Your task to perform on an android device: read, delete, or share a saved page in the chrome app Image 0: 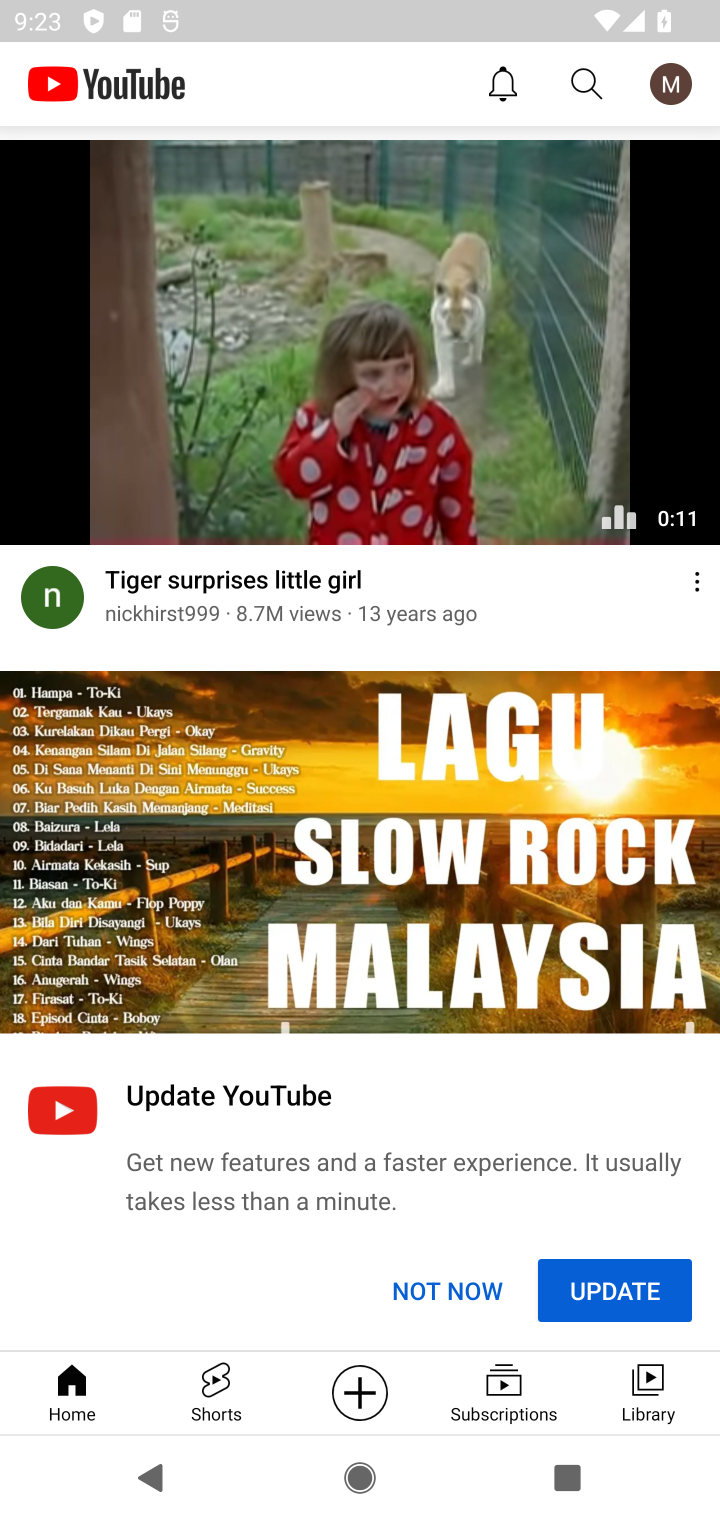
Step 0: press home button
Your task to perform on an android device: read, delete, or share a saved page in the chrome app Image 1: 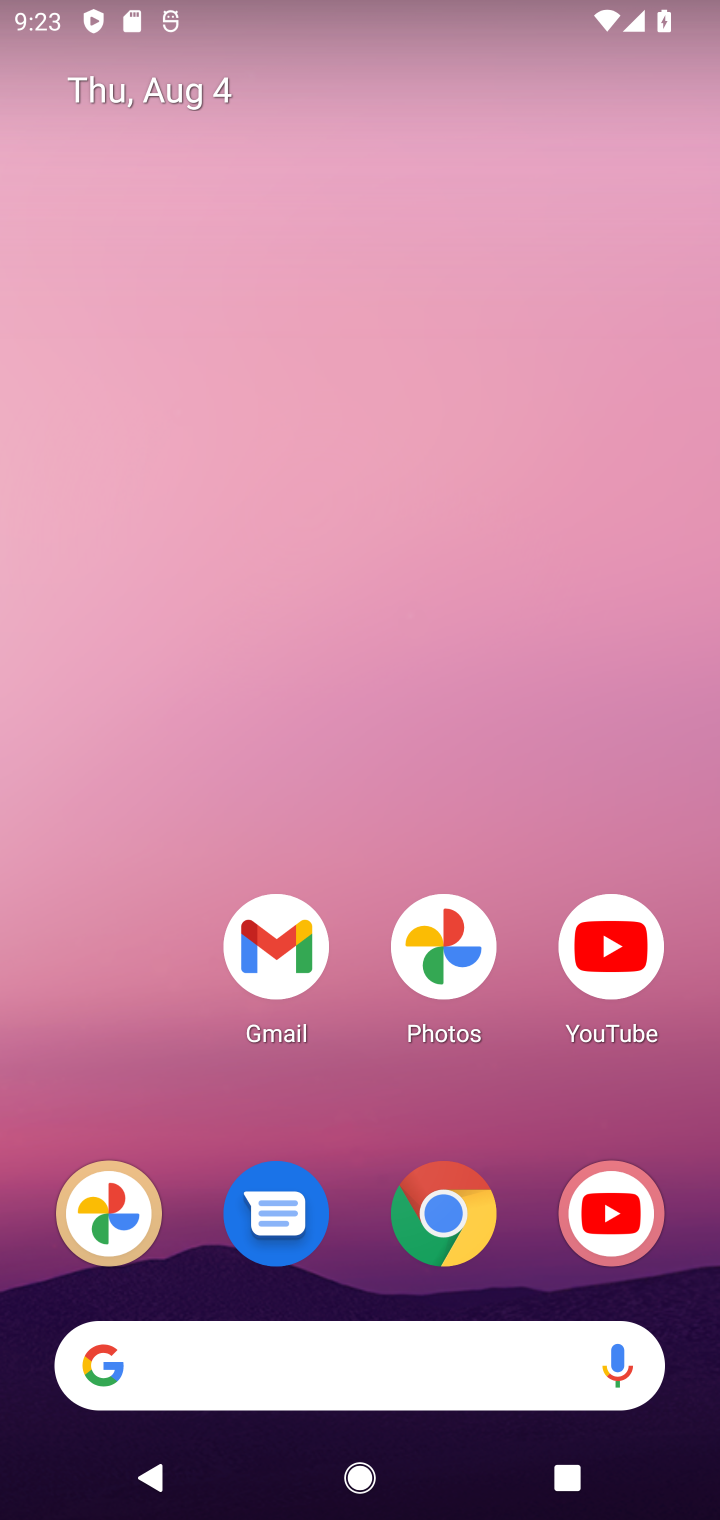
Step 1: click (438, 1211)
Your task to perform on an android device: read, delete, or share a saved page in the chrome app Image 2: 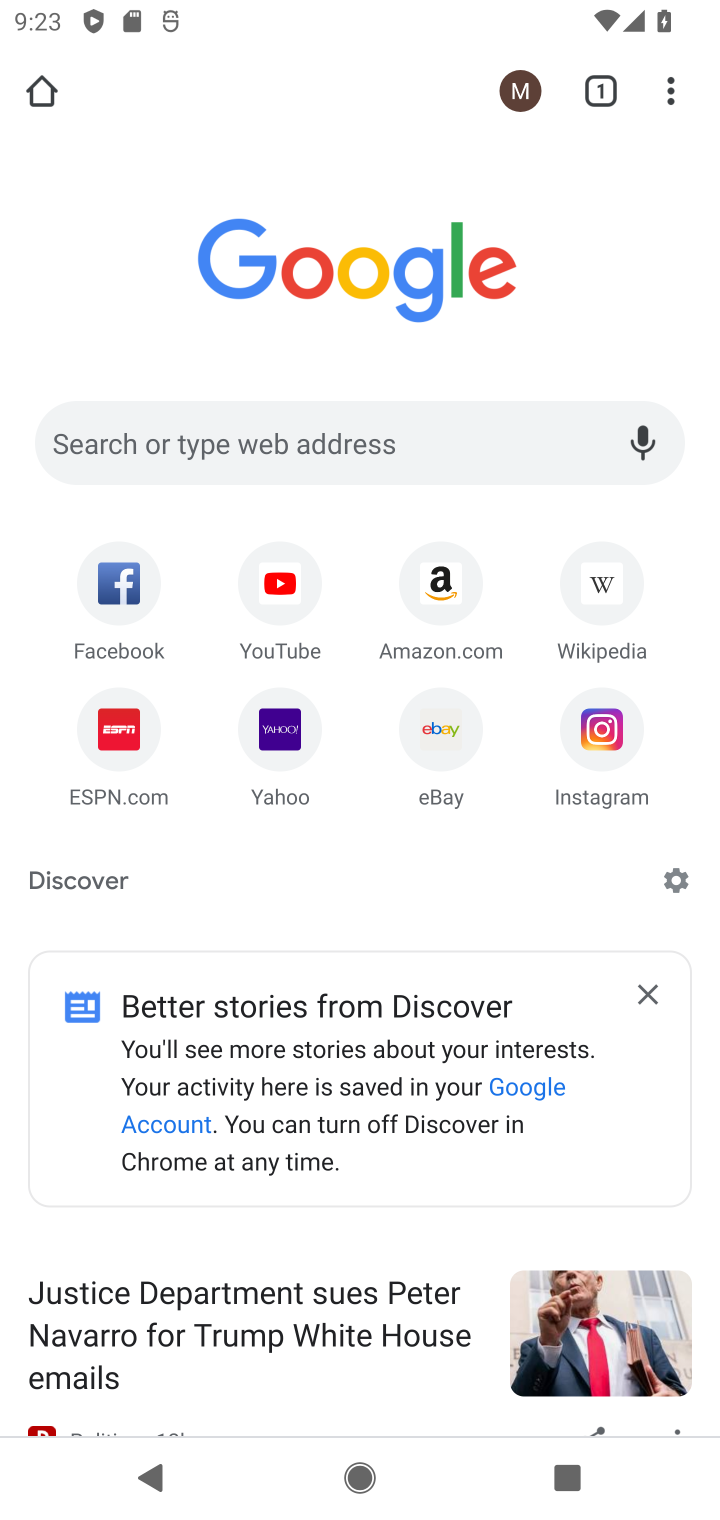
Step 2: click (674, 71)
Your task to perform on an android device: read, delete, or share a saved page in the chrome app Image 3: 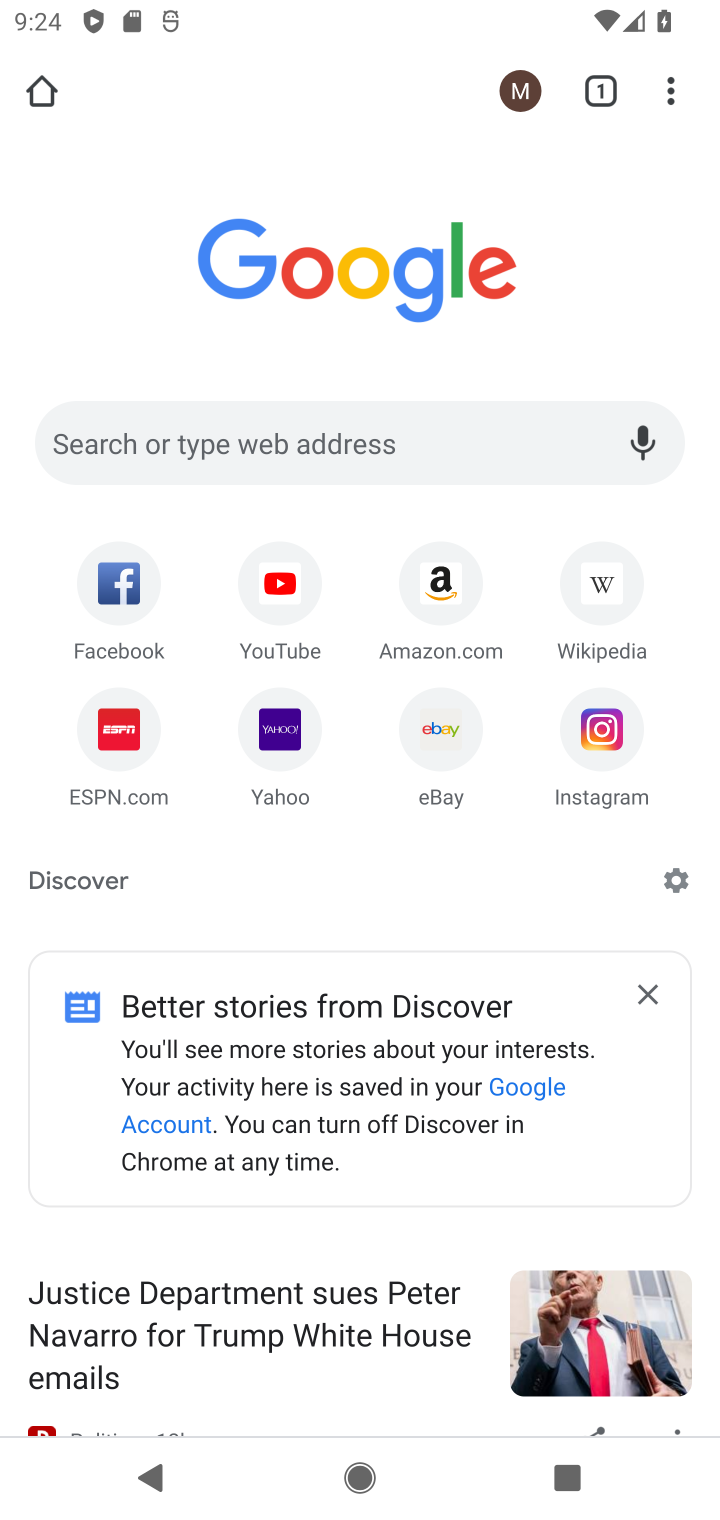
Step 3: click (668, 82)
Your task to perform on an android device: read, delete, or share a saved page in the chrome app Image 4: 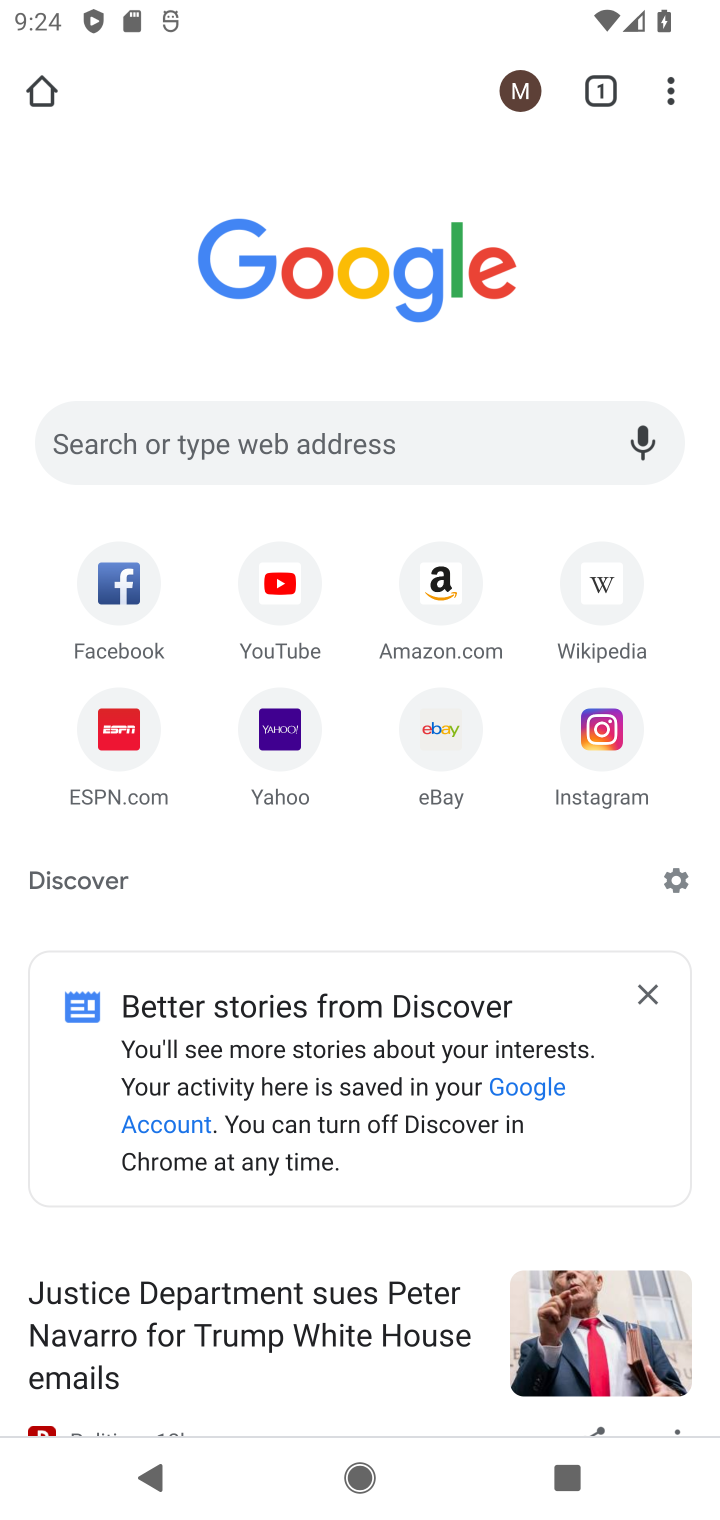
Step 4: click (677, 95)
Your task to perform on an android device: read, delete, or share a saved page in the chrome app Image 5: 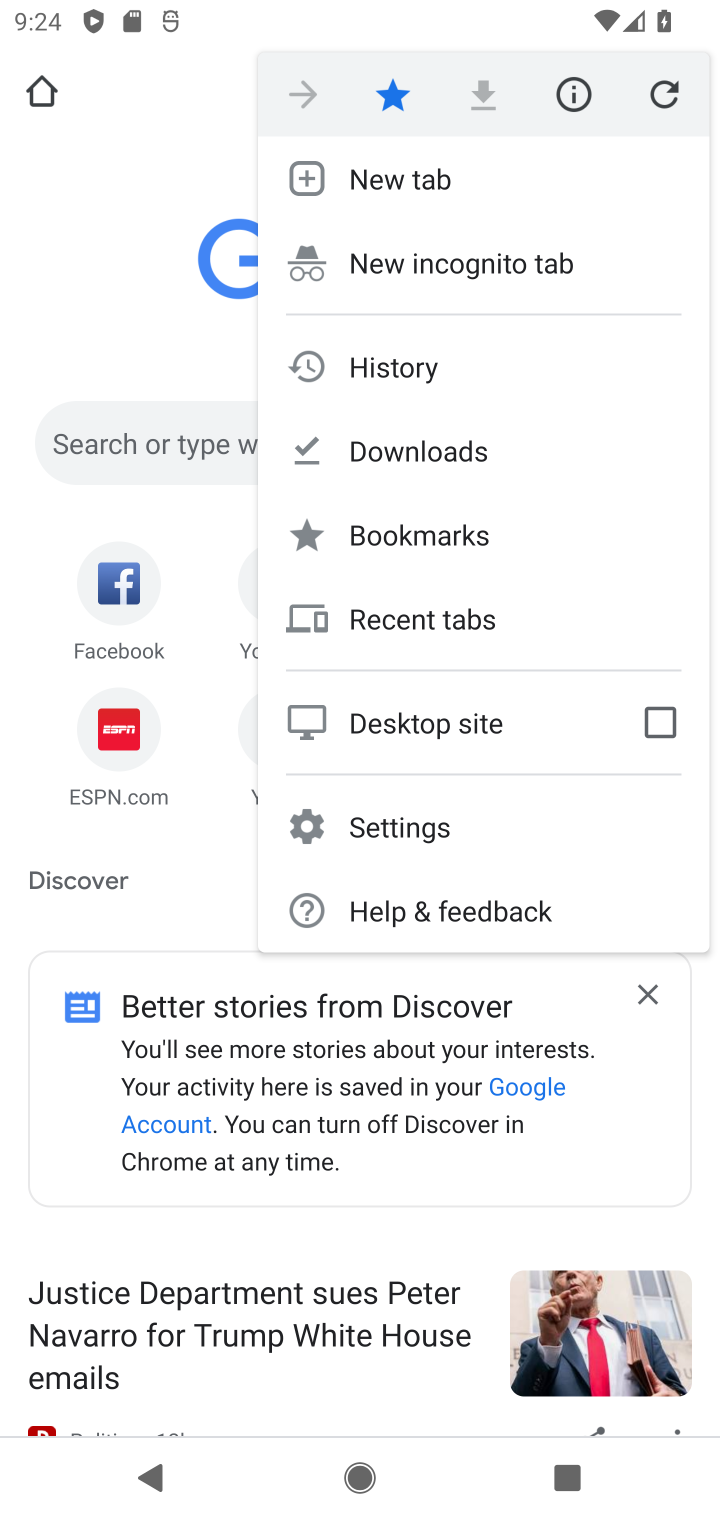
Step 5: click (416, 446)
Your task to perform on an android device: read, delete, or share a saved page in the chrome app Image 6: 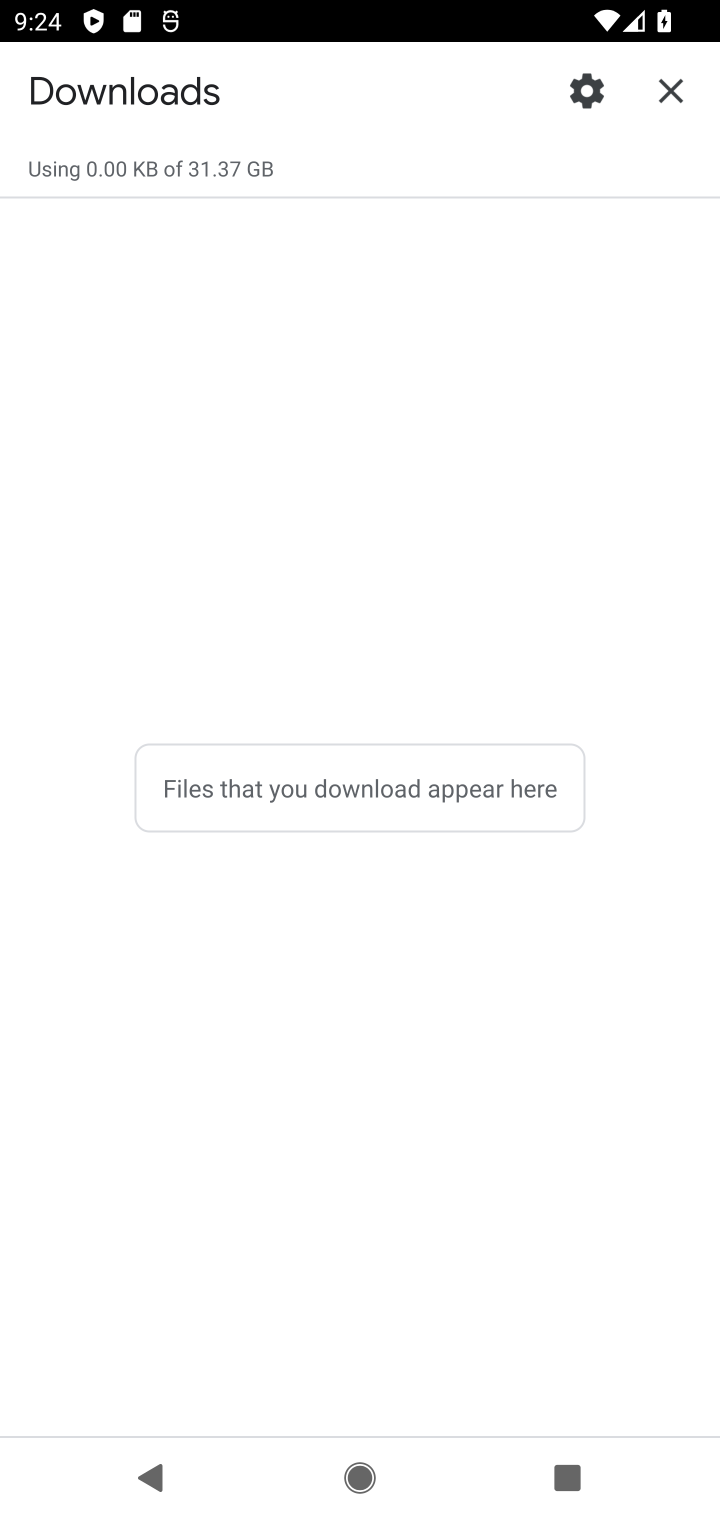
Step 6: task complete